Your task to perform on an android device: manage bookmarks in the chrome app Image 0: 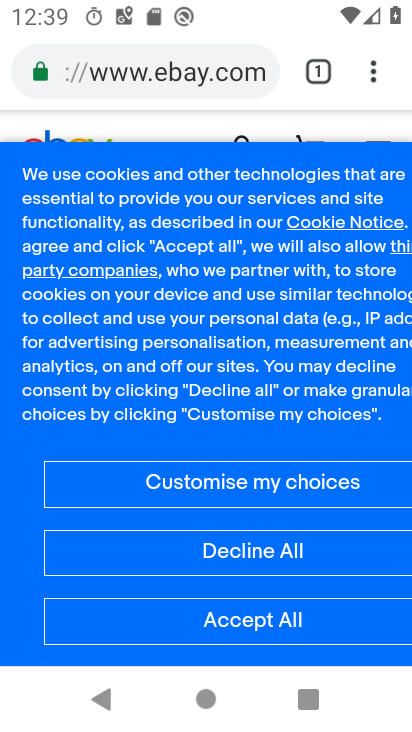
Step 0: press back button
Your task to perform on an android device: manage bookmarks in the chrome app Image 1: 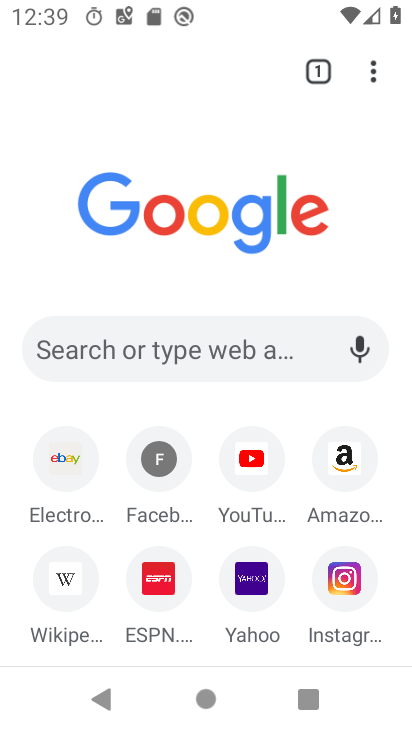
Step 1: drag from (374, 73) to (122, 265)
Your task to perform on an android device: manage bookmarks in the chrome app Image 2: 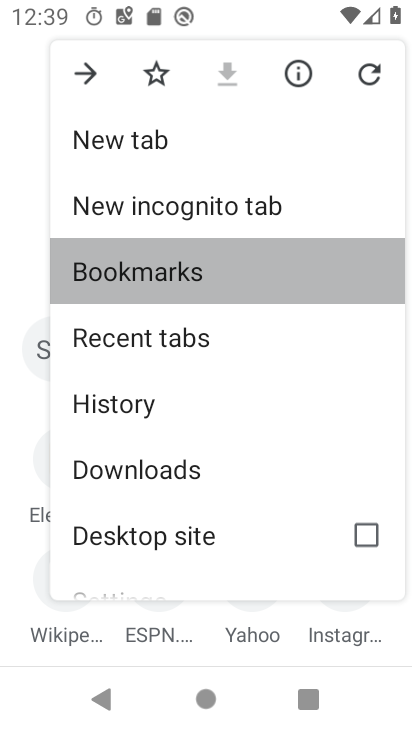
Step 2: click (130, 266)
Your task to perform on an android device: manage bookmarks in the chrome app Image 3: 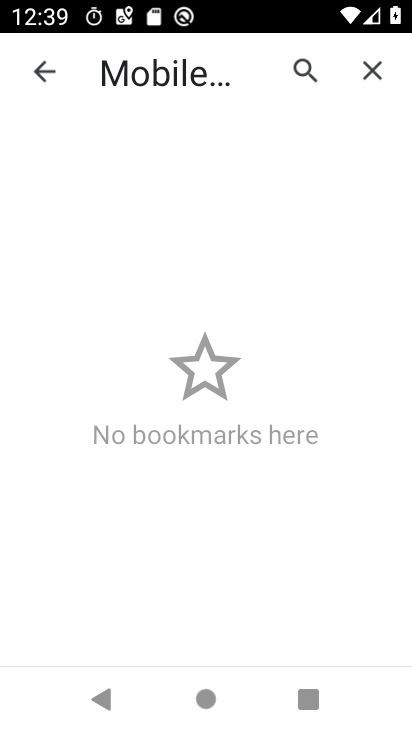
Step 3: task complete